Your task to perform on an android device: Toggle the flashlight Image 0: 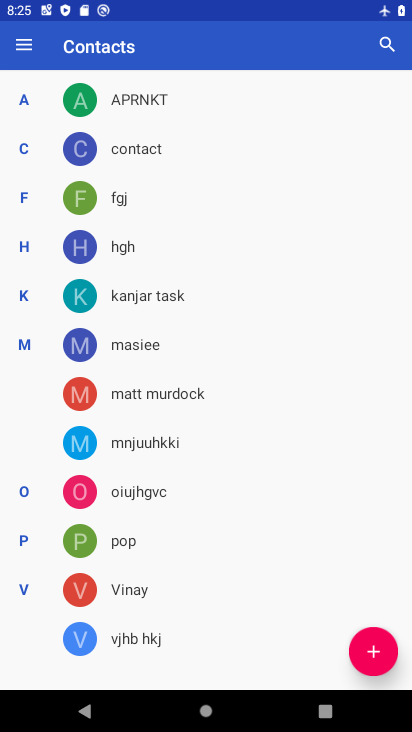
Step 0: press home button
Your task to perform on an android device: Toggle the flashlight Image 1: 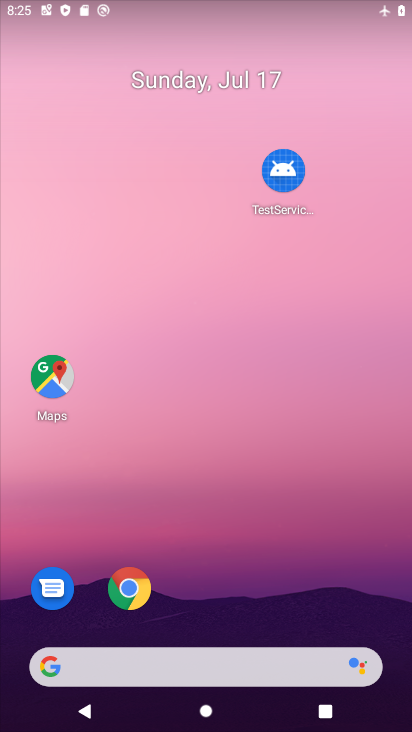
Step 1: task complete